Your task to perform on an android device: What is the capital of Japan? Image 0: 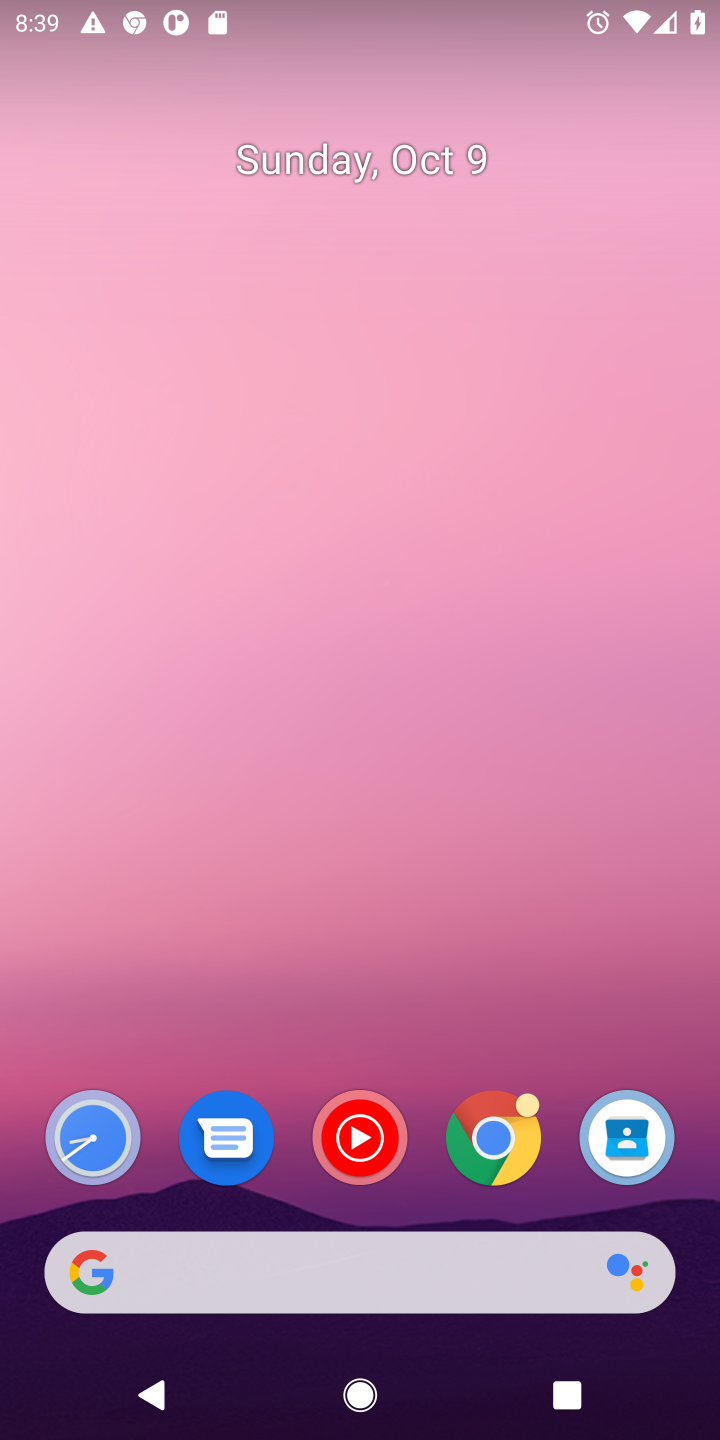
Step 0: drag from (283, 960) to (321, 530)
Your task to perform on an android device: What is the capital of Japan? Image 1: 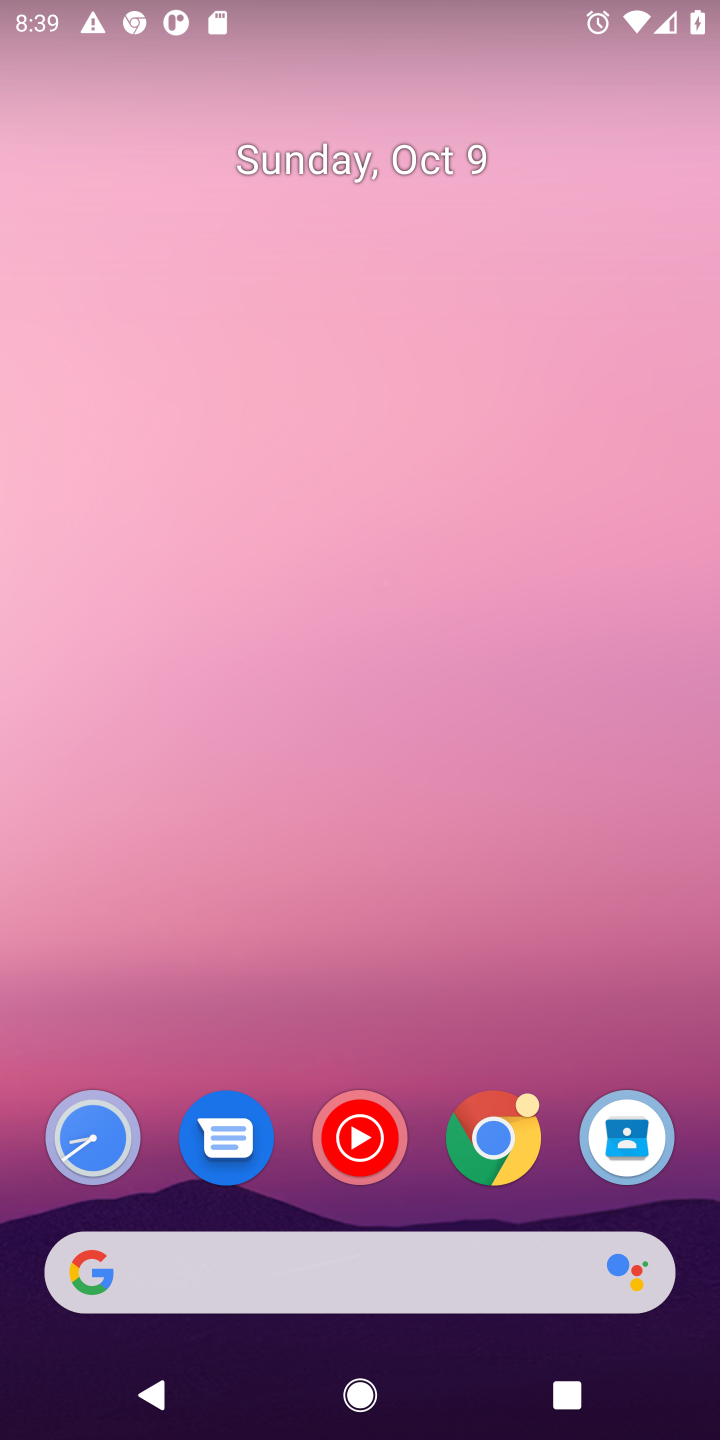
Step 1: drag from (343, 914) to (353, 289)
Your task to perform on an android device: What is the capital of Japan? Image 2: 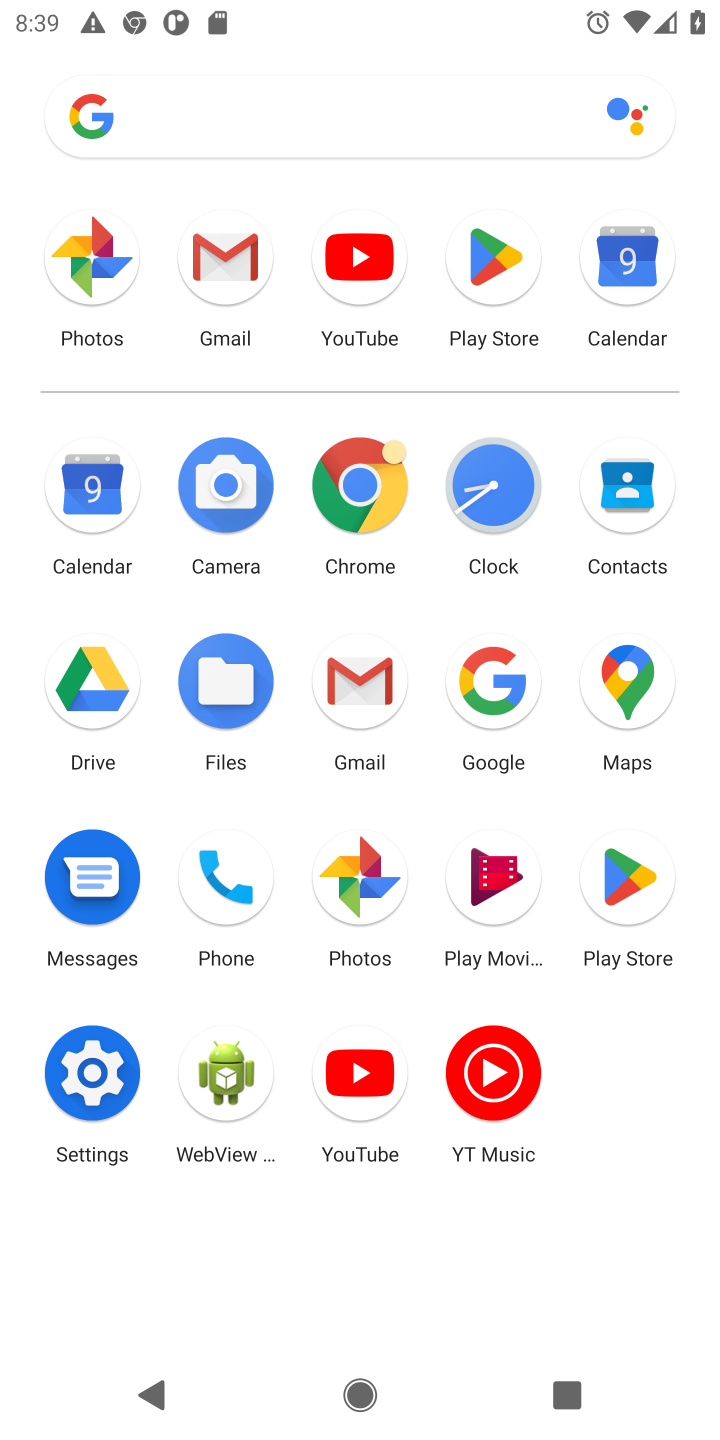
Step 2: click (505, 696)
Your task to perform on an android device: What is the capital of Japan? Image 3: 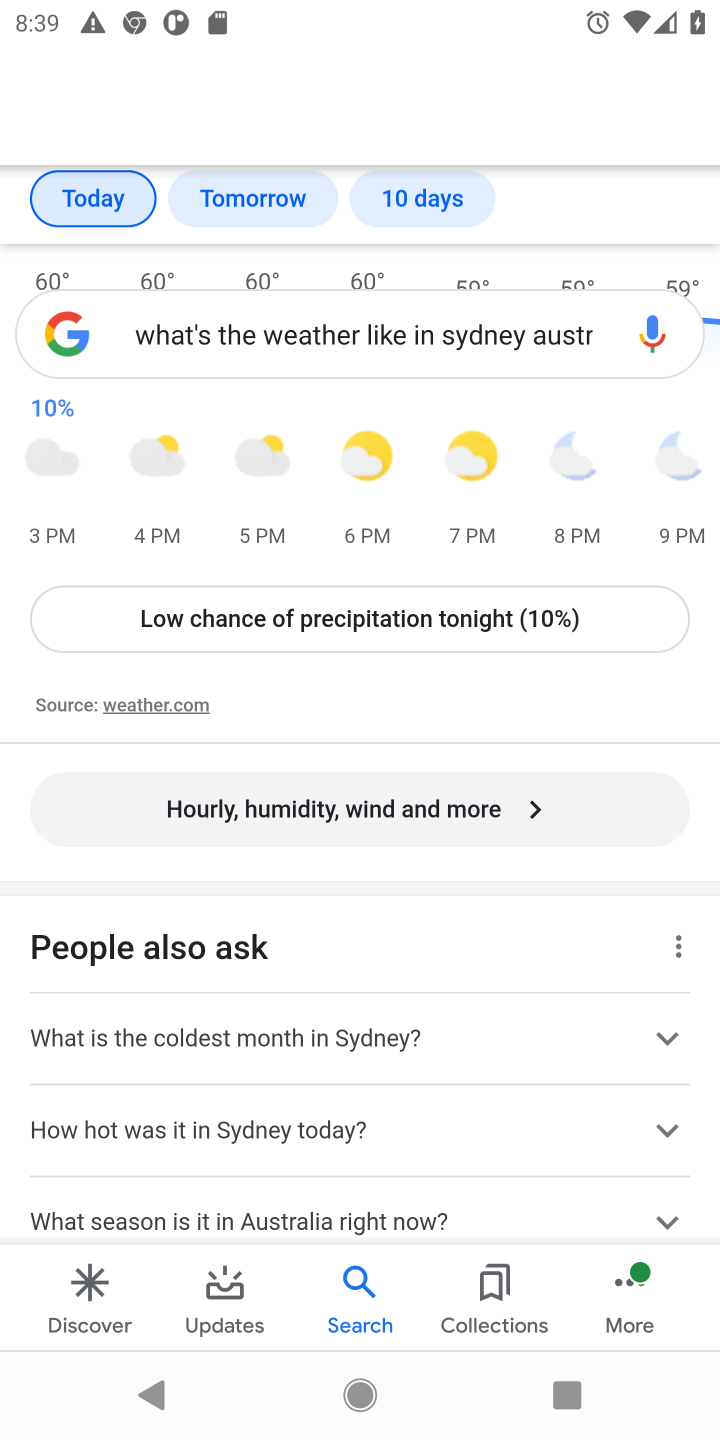
Step 3: click (409, 324)
Your task to perform on an android device: What is the capital of Japan? Image 4: 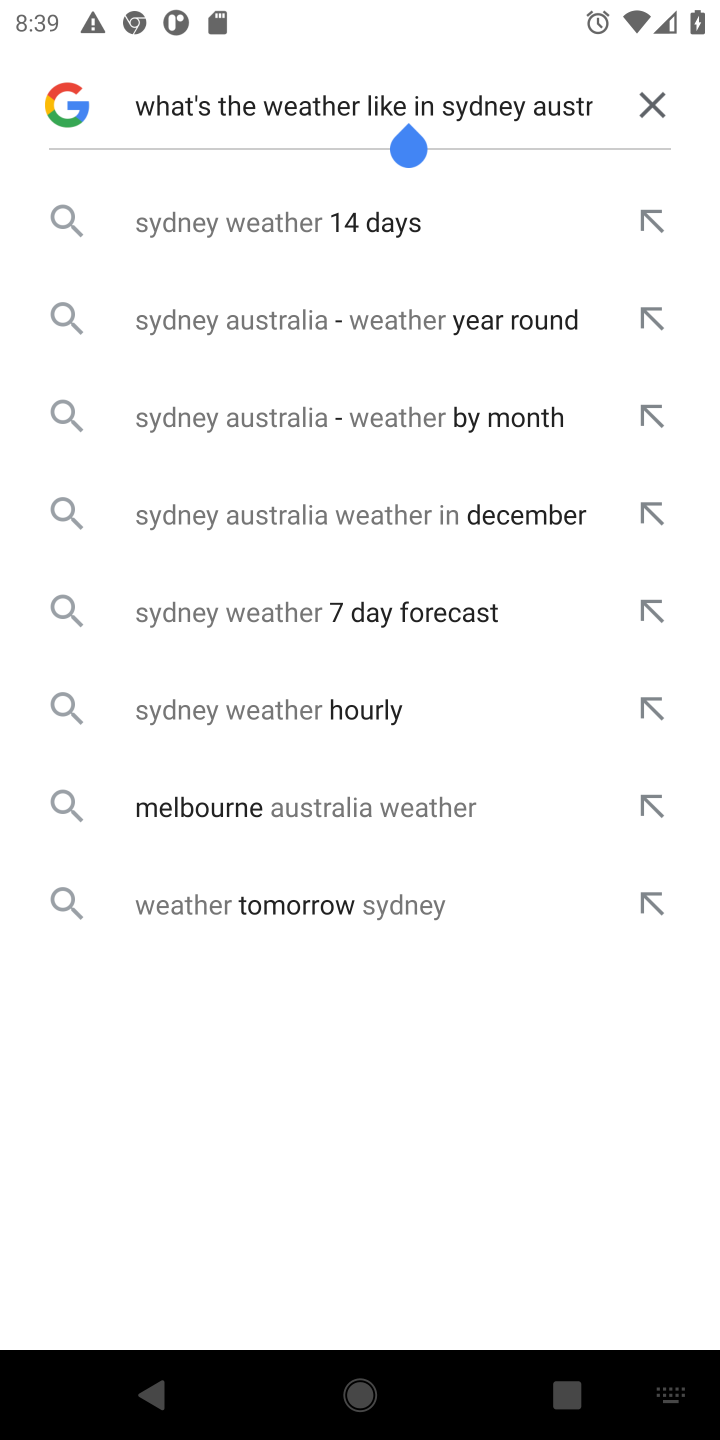
Step 4: click (654, 96)
Your task to perform on an android device: What is the capital of Japan? Image 5: 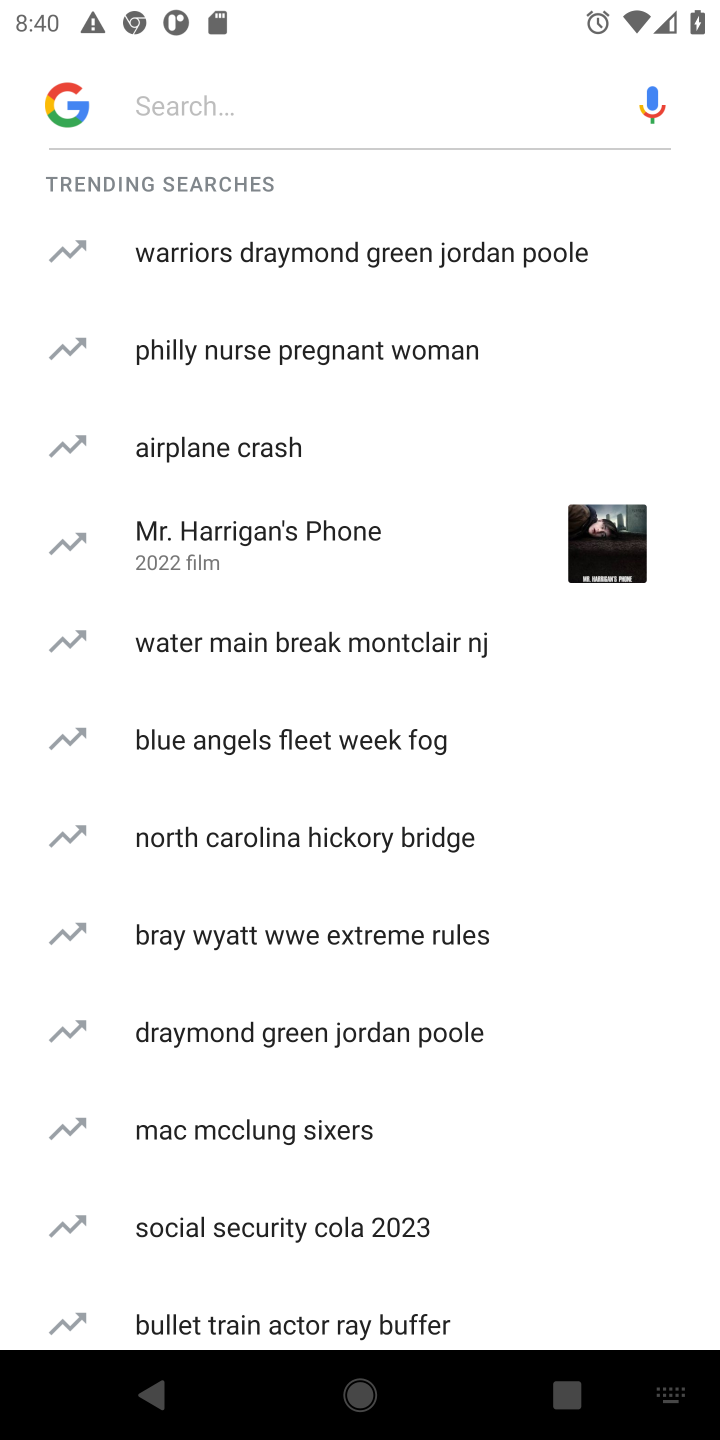
Step 5: click (359, 106)
Your task to perform on an android device: What is the capital of Japan? Image 6: 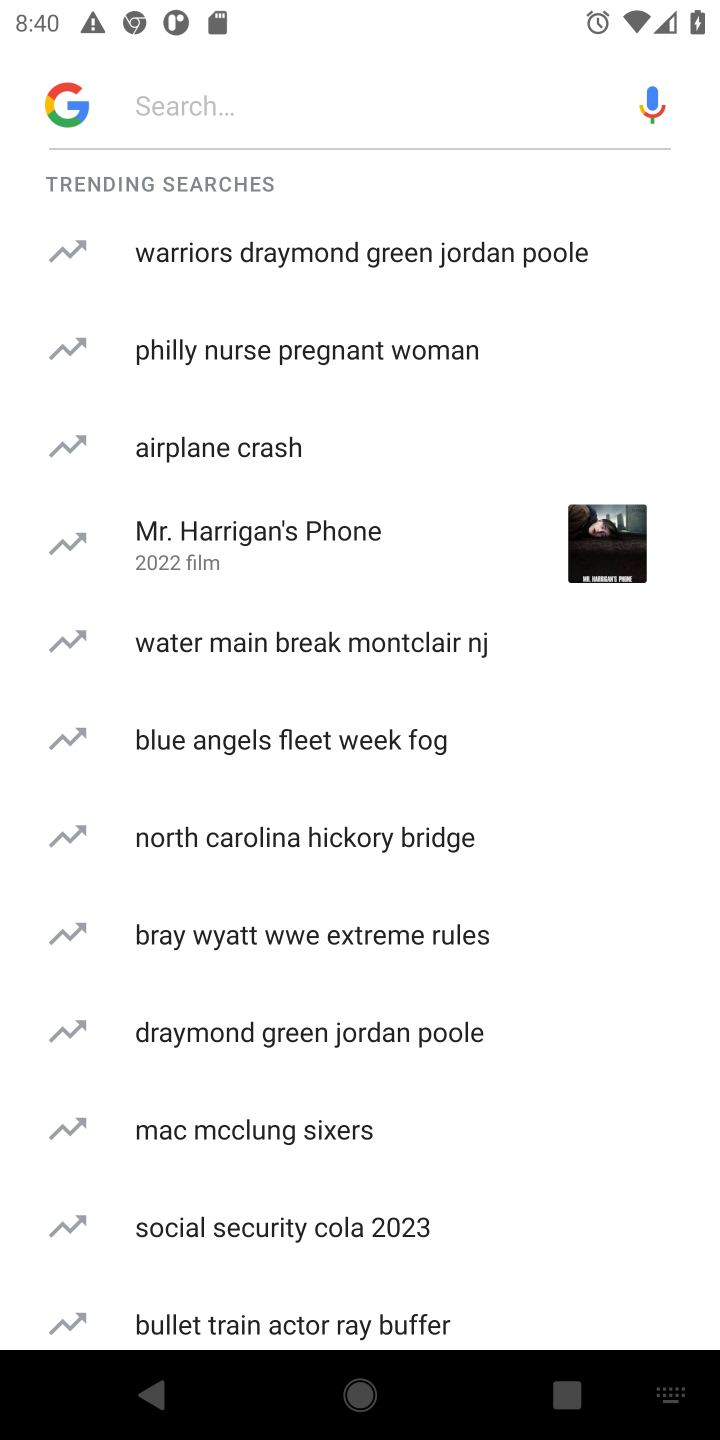
Step 6: type "What is the capital of Japan? "
Your task to perform on an android device: What is the capital of Japan? Image 7: 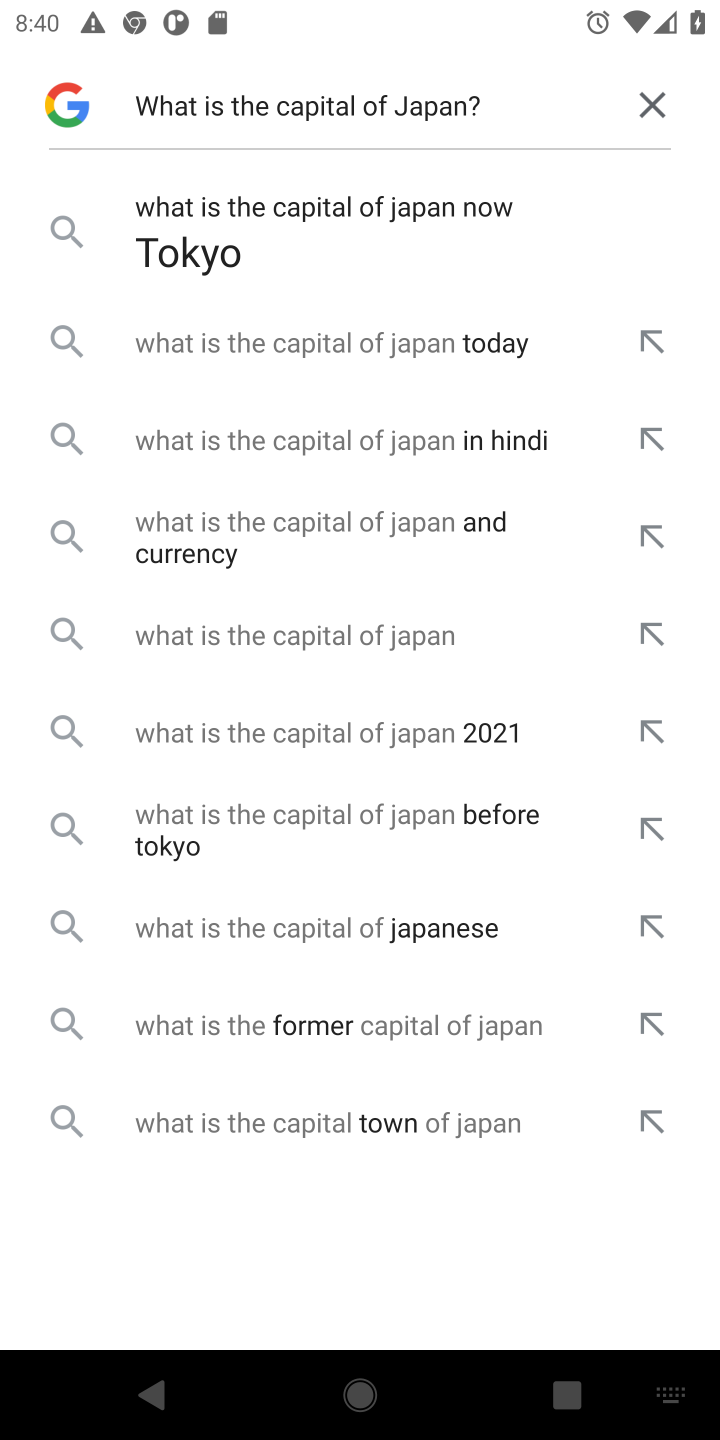
Step 7: click (249, 258)
Your task to perform on an android device: What is the capital of Japan? Image 8: 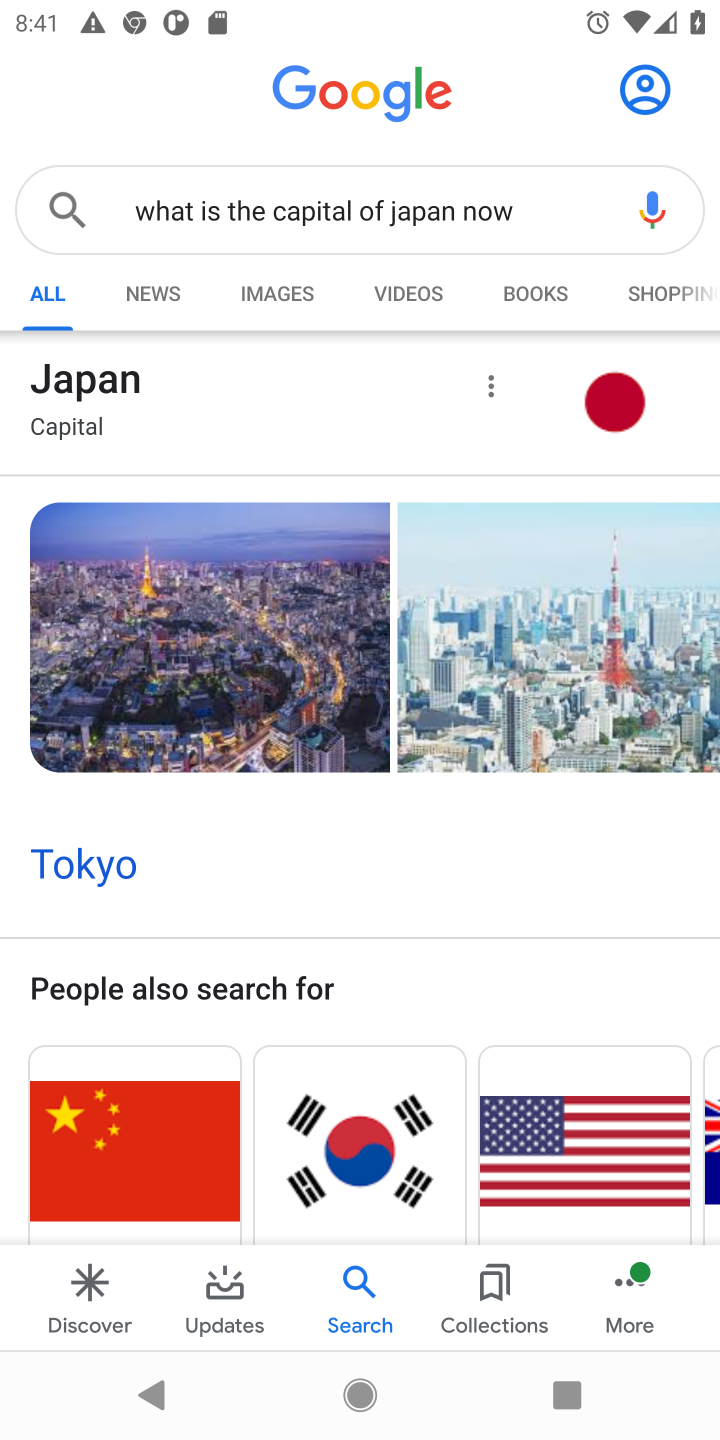
Step 8: task complete